Your task to perform on an android device: empty trash in the gmail app Image 0: 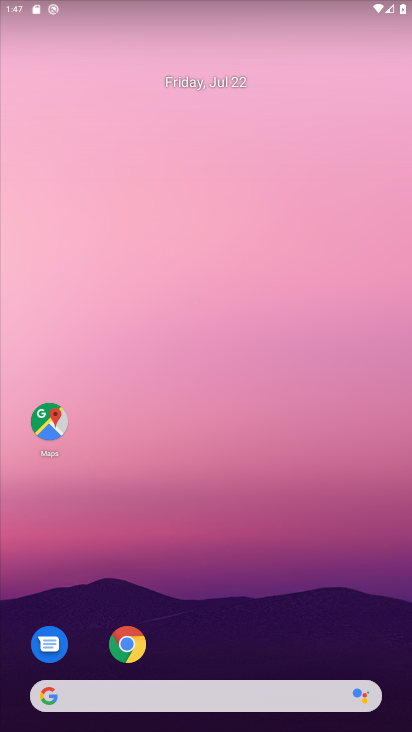
Step 0: drag from (242, 616) to (367, 4)
Your task to perform on an android device: empty trash in the gmail app Image 1: 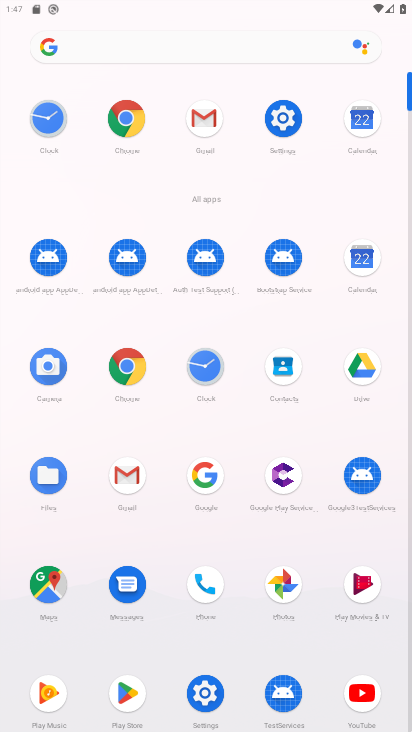
Step 1: click (200, 126)
Your task to perform on an android device: empty trash in the gmail app Image 2: 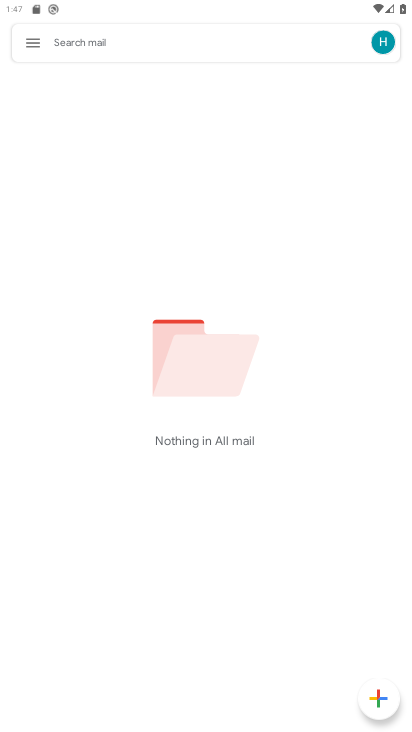
Step 2: click (36, 40)
Your task to perform on an android device: empty trash in the gmail app Image 3: 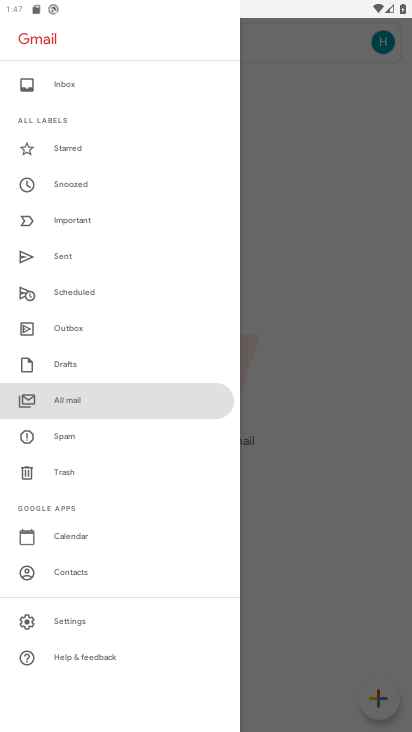
Step 3: click (60, 465)
Your task to perform on an android device: empty trash in the gmail app Image 4: 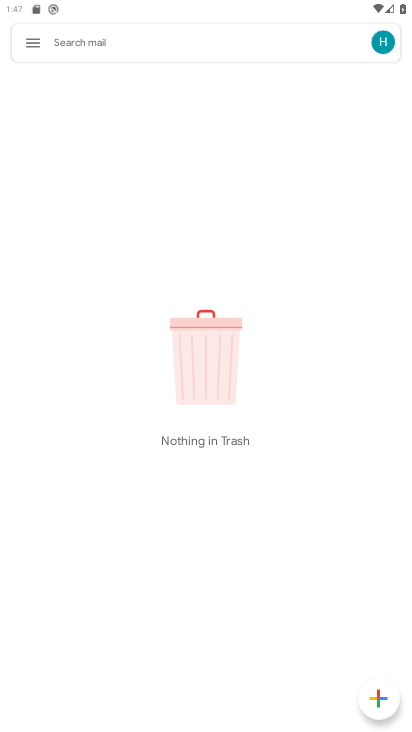
Step 4: task complete